Your task to perform on an android device: toggle pop-ups in chrome Image 0: 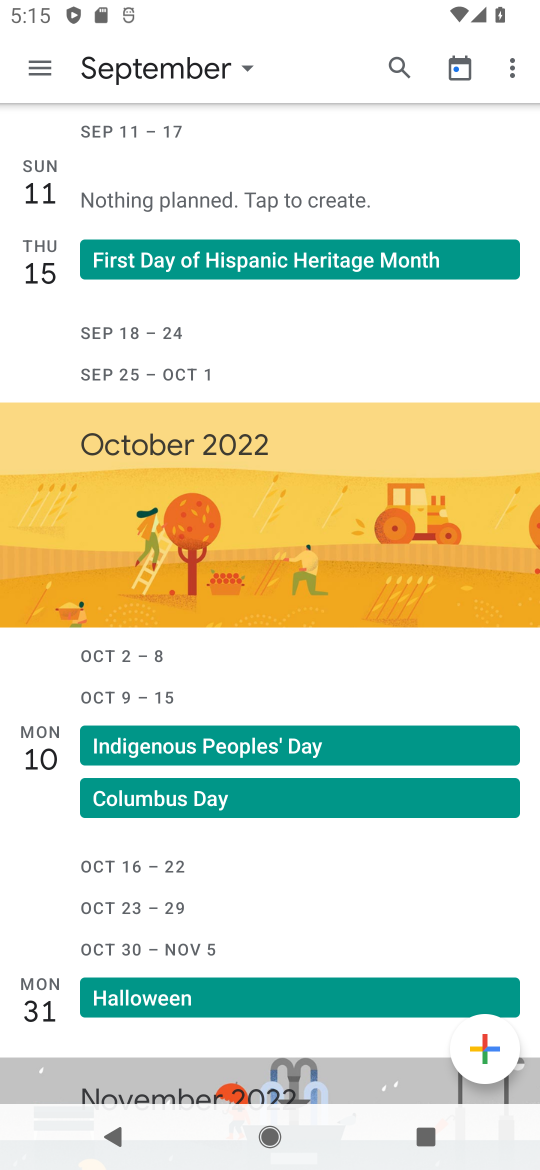
Step 0: press home button
Your task to perform on an android device: toggle pop-ups in chrome Image 1: 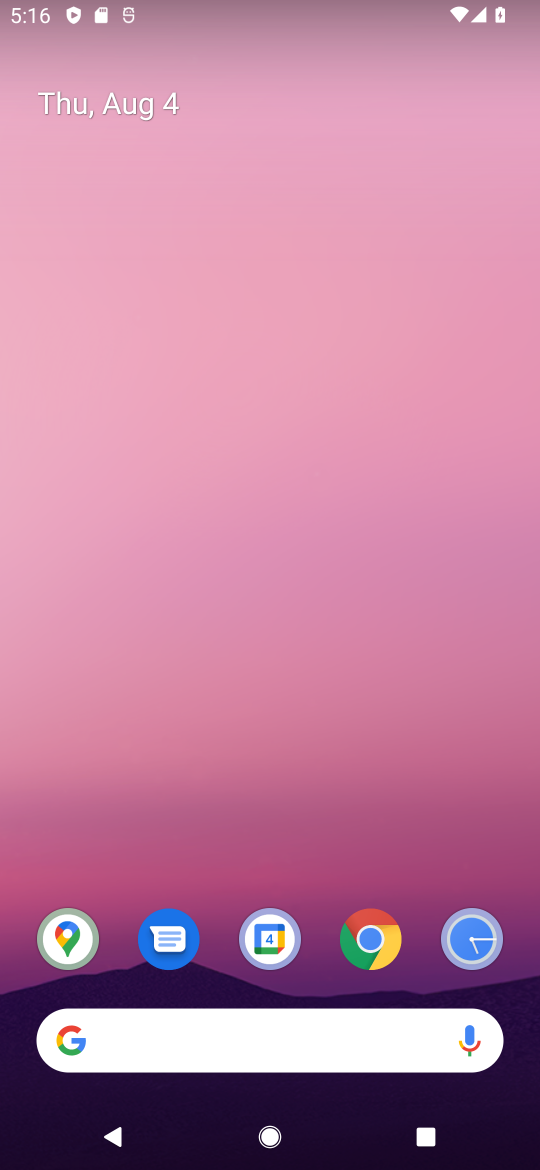
Step 1: click (377, 952)
Your task to perform on an android device: toggle pop-ups in chrome Image 2: 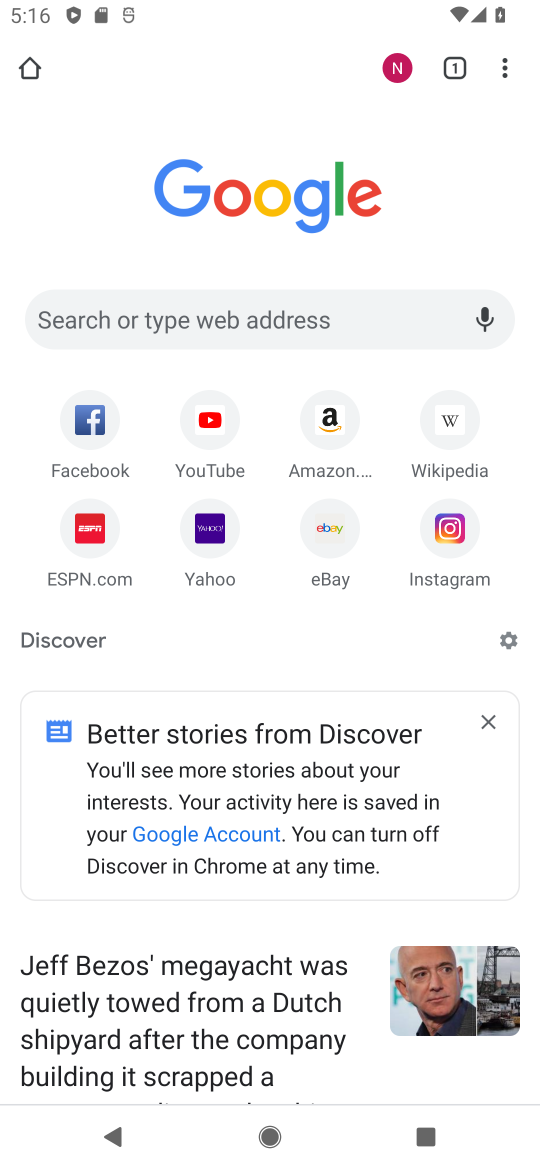
Step 2: click (504, 73)
Your task to perform on an android device: toggle pop-ups in chrome Image 3: 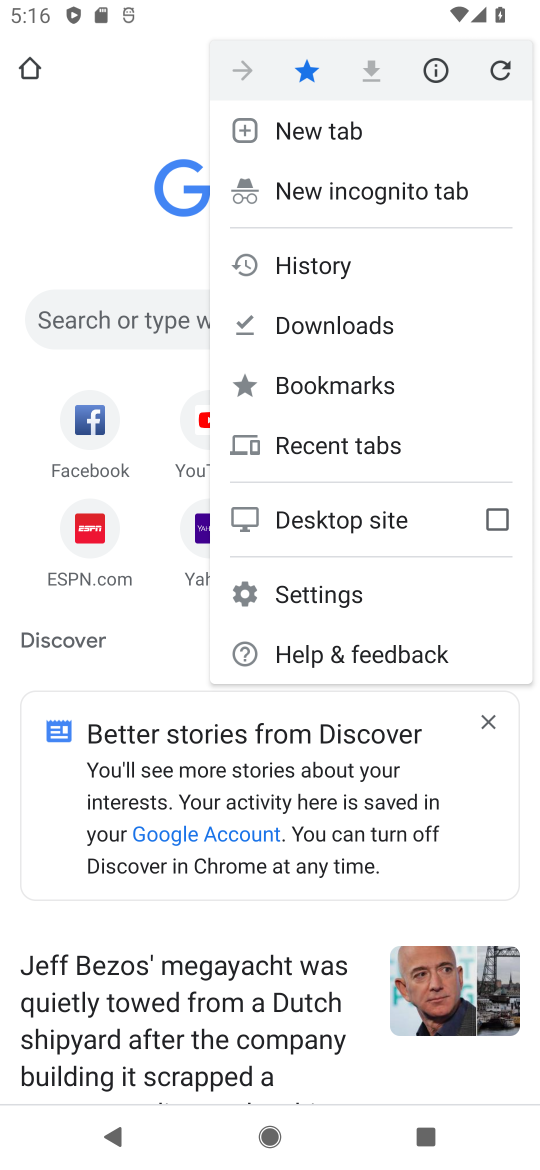
Step 3: click (302, 597)
Your task to perform on an android device: toggle pop-ups in chrome Image 4: 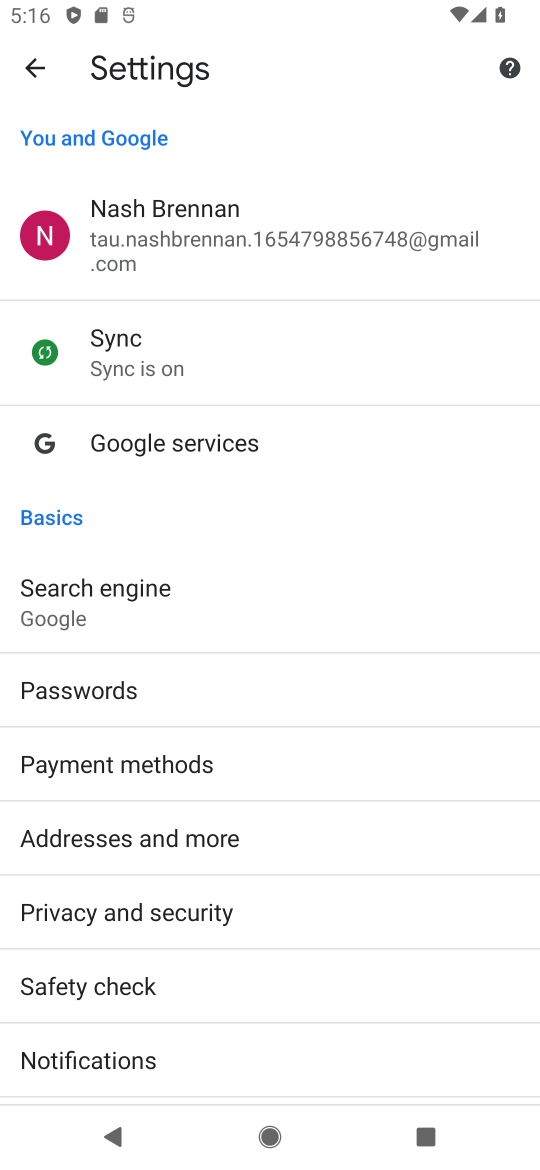
Step 4: drag from (104, 1075) to (169, 476)
Your task to perform on an android device: toggle pop-ups in chrome Image 5: 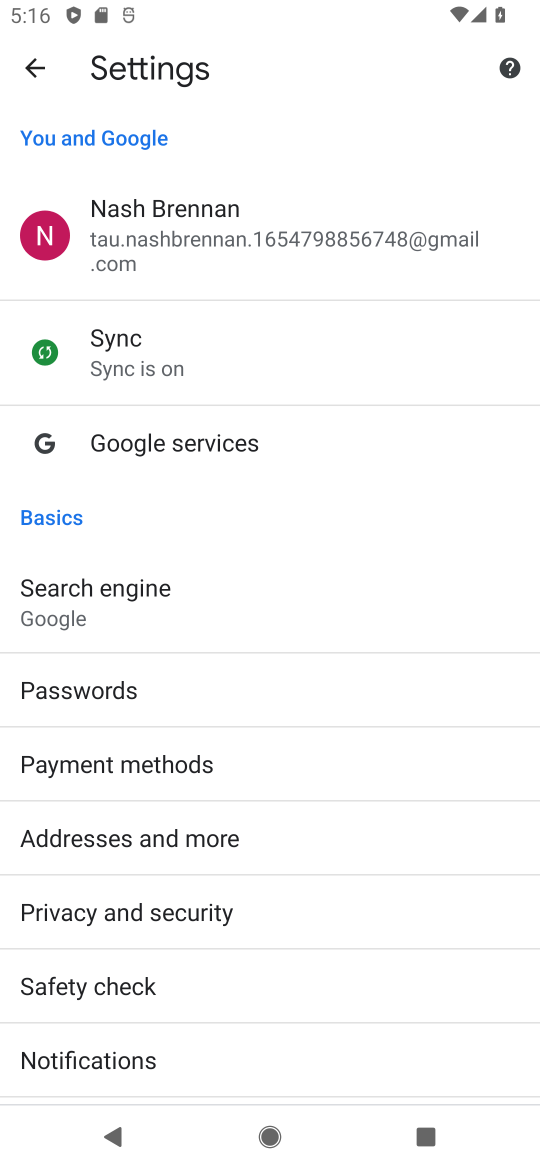
Step 5: drag from (131, 1083) to (227, 424)
Your task to perform on an android device: toggle pop-ups in chrome Image 6: 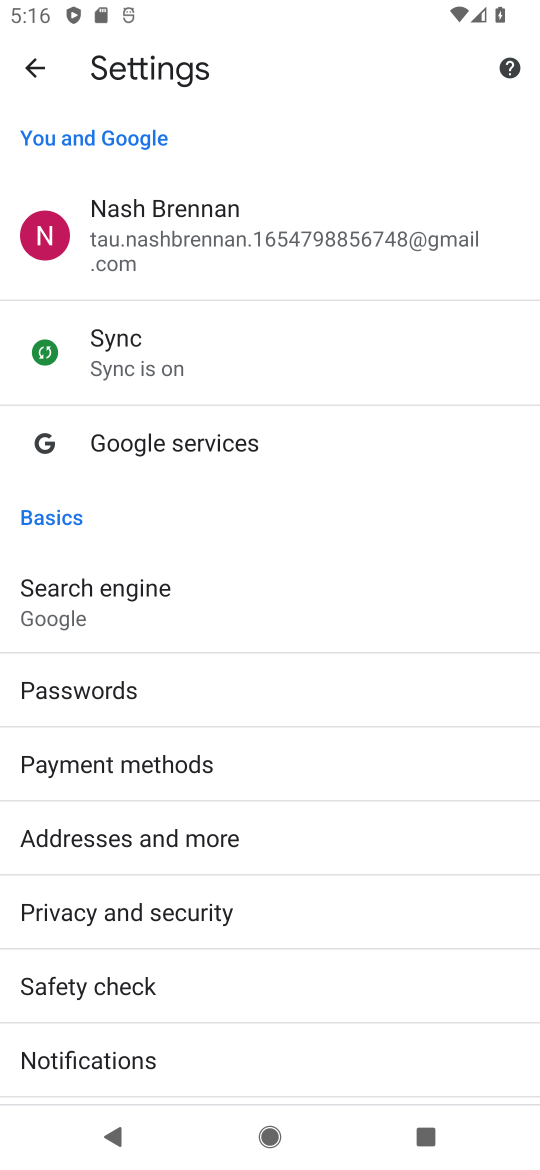
Step 6: drag from (170, 984) to (170, 274)
Your task to perform on an android device: toggle pop-ups in chrome Image 7: 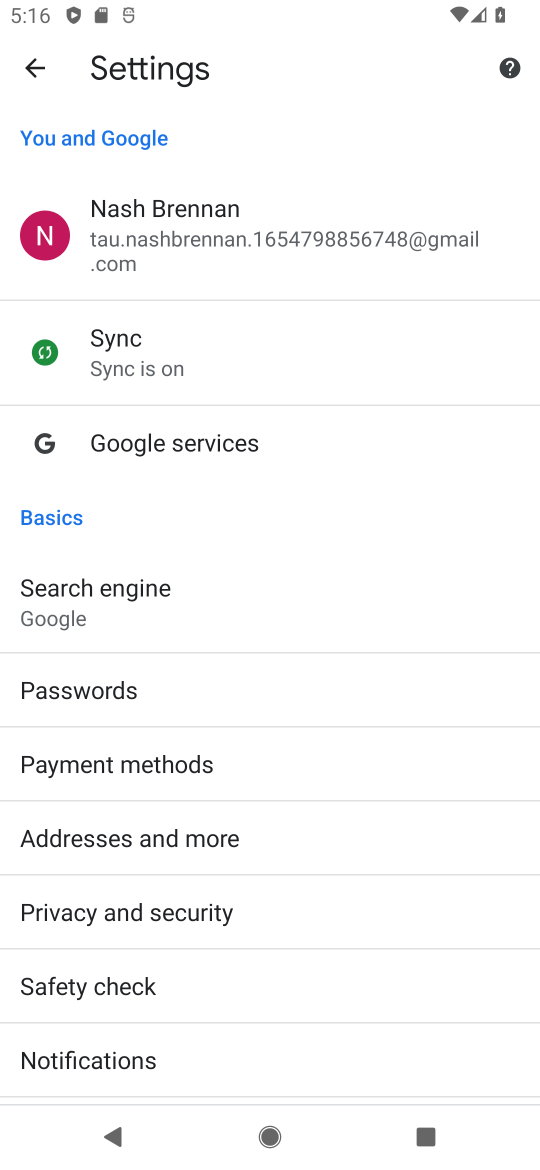
Step 7: drag from (102, 891) to (206, 195)
Your task to perform on an android device: toggle pop-ups in chrome Image 8: 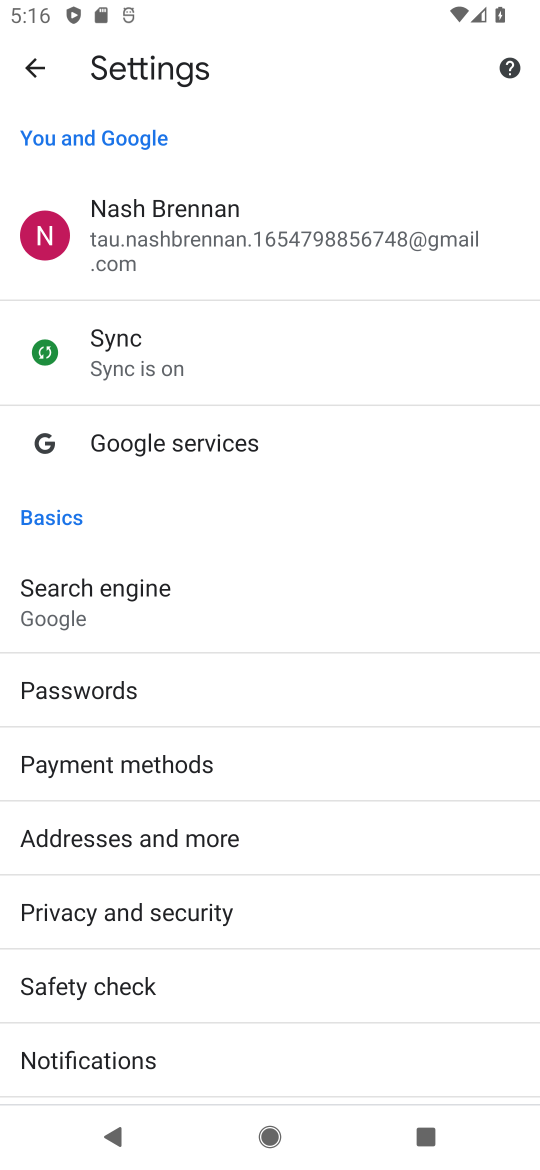
Step 8: drag from (126, 780) to (224, 100)
Your task to perform on an android device: toggle pop-ups in chrome Image 9: 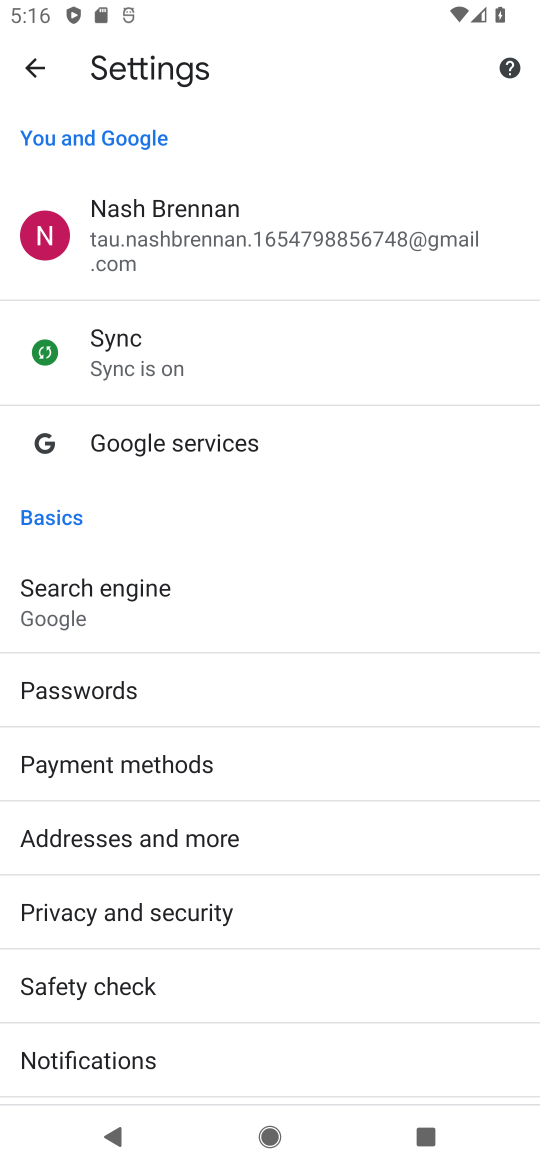
Step 9: drag from (179, 711) to (231, 136)
Your task to perform on an android device: toggle pop-ups in chrome Image 10: 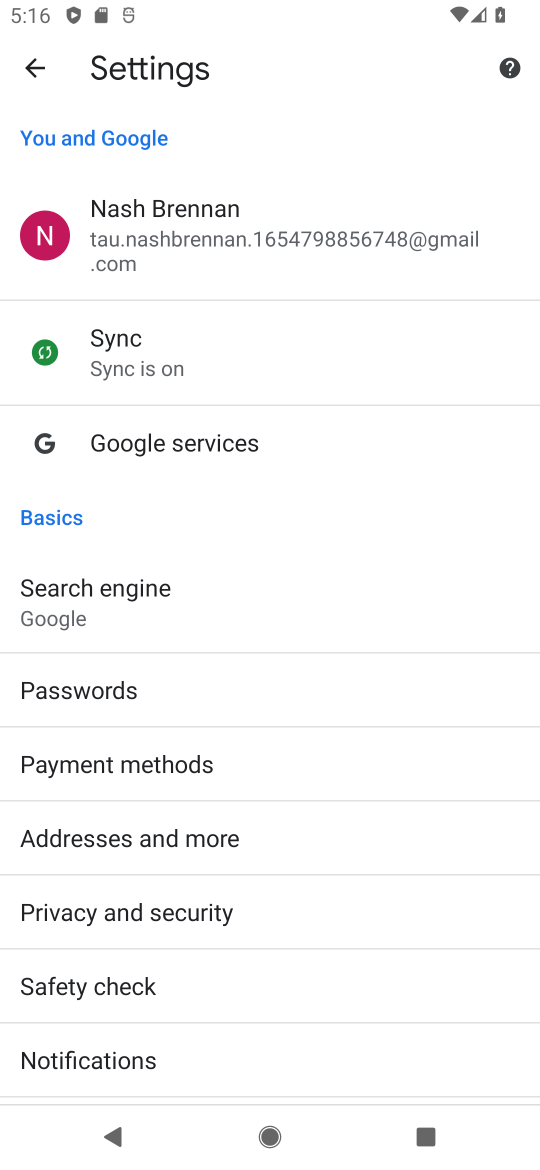
Step 10: drag from (132, 1097) to (223, 475)
Your task to perform on an android device: toggle pop-ups in chrome Image 11: 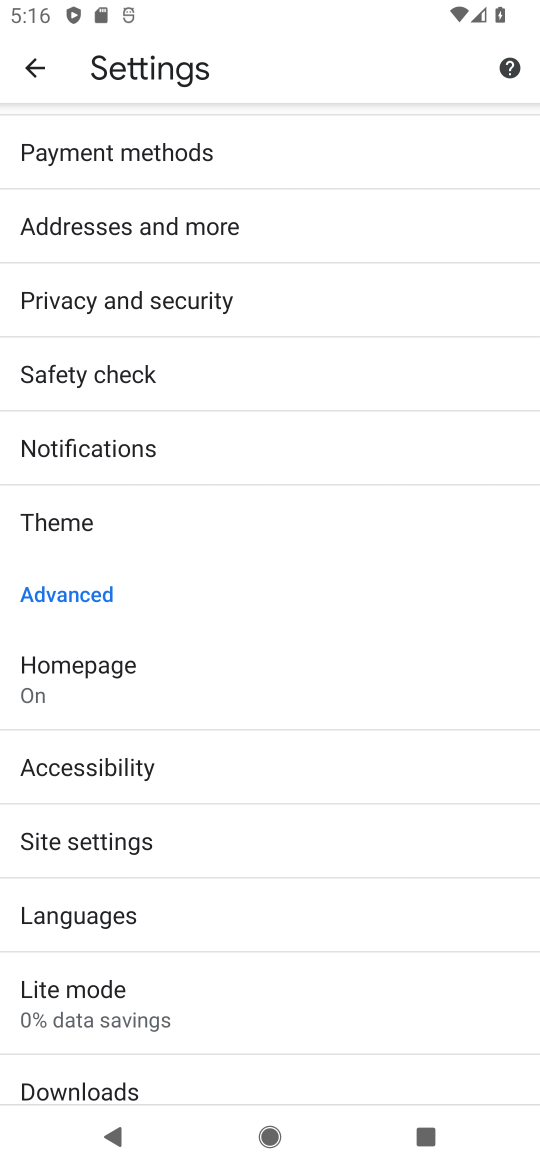
Step 11: click (82, 844)
Your task to perform on an android device: toggle pop-ups in chrome Image 12: 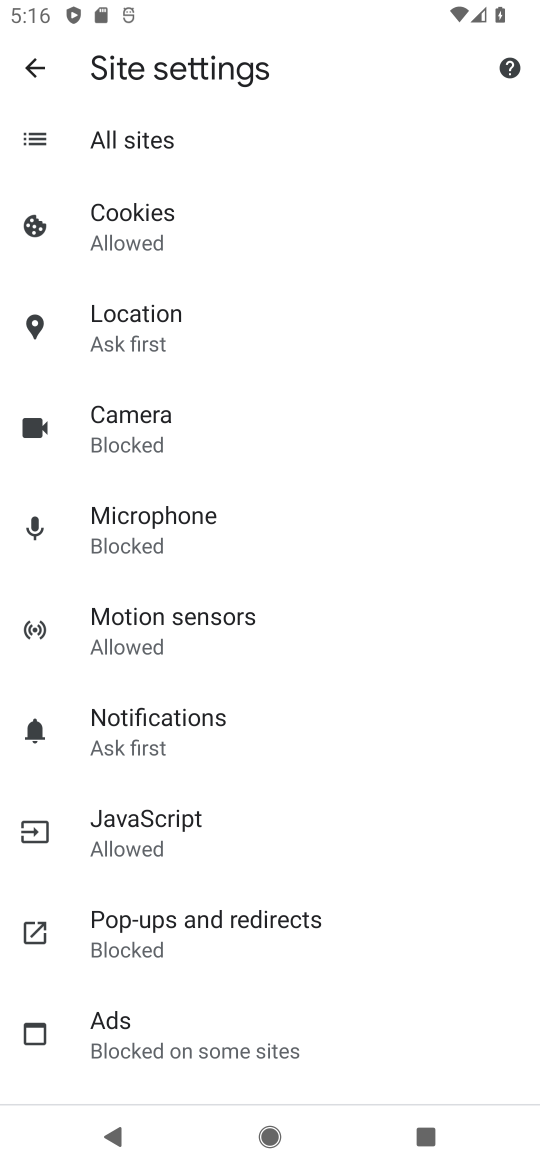
Step 12: click (154, 936)
Your task to perform on an android device: toggle pop-ups in chrome Image 13: 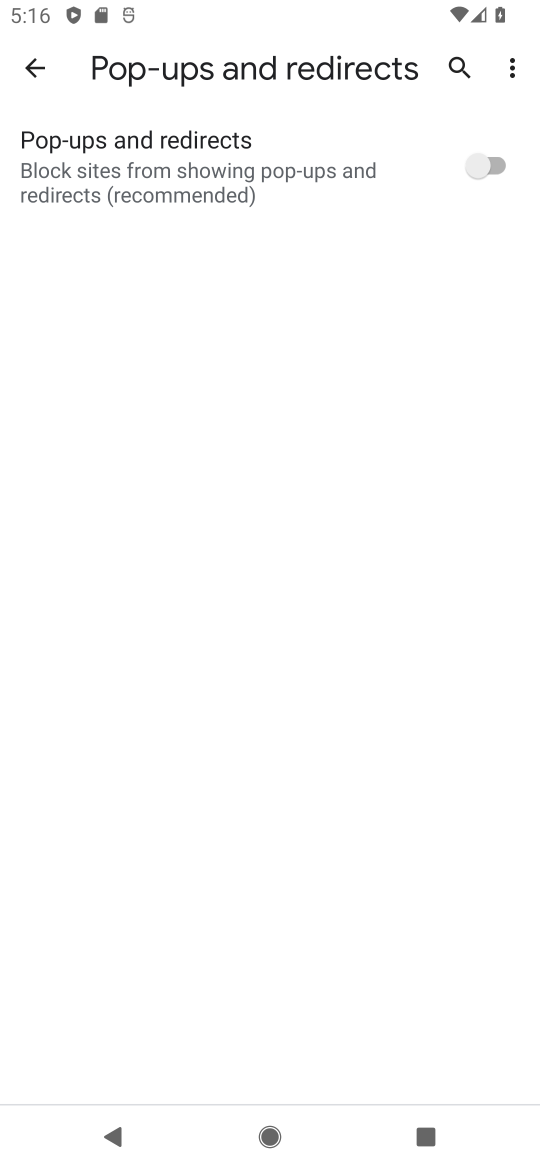
Step 13: click (504, 159)
Your task to perform on an android device: toggle pop-ups in chrome Image 14: 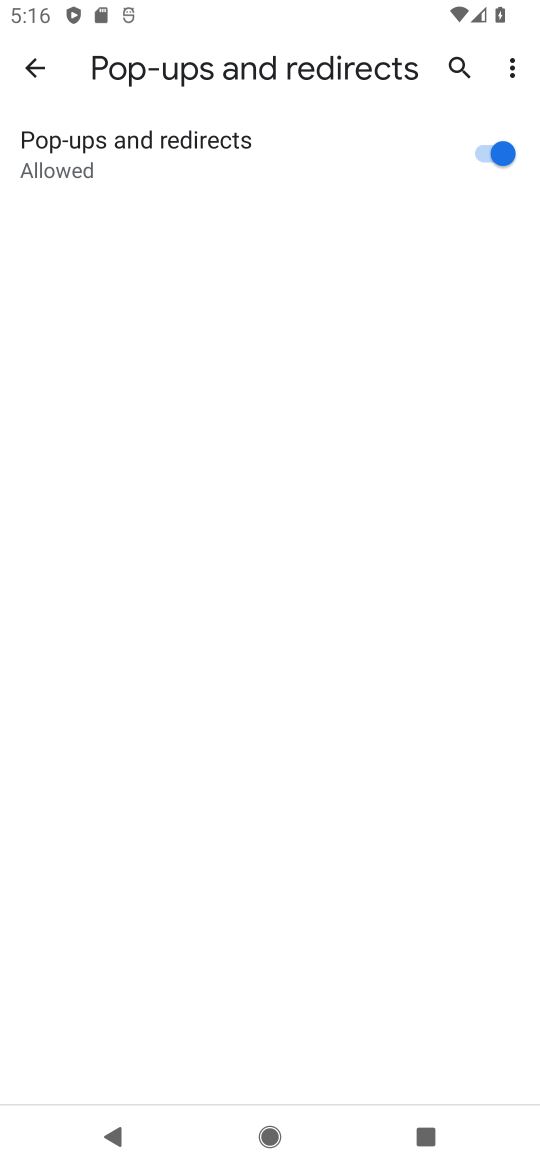
Step 14: task complete